Your task to perform on an android device: toggle notification dots Image 0: 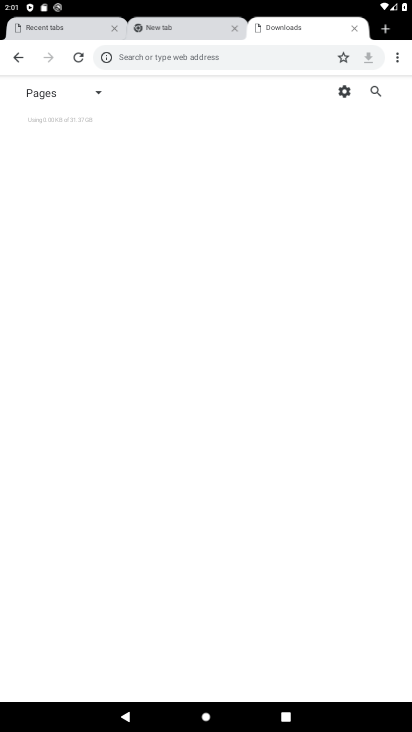
Step 0: press home button
Your task to perform on an android device: toggle notification dots Image 1: 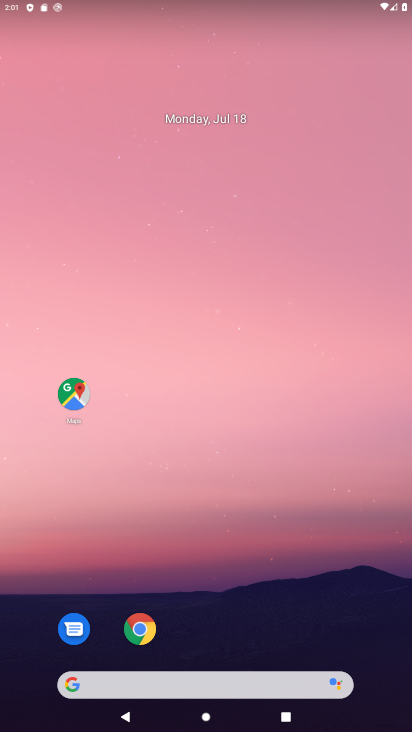
Step 1: drag from (172, 632) to (179, 204)
Your task to perform on an android device: toggle notification dots Image 2: 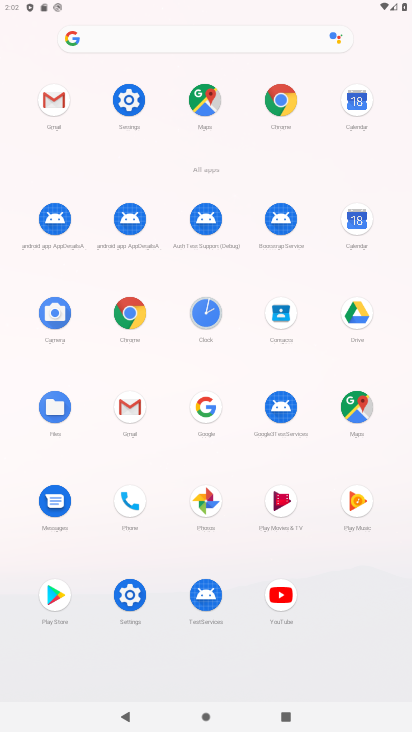
Step 2: click (113, 110)
Your task to perform on an android device: toggle notification dots Image 3: 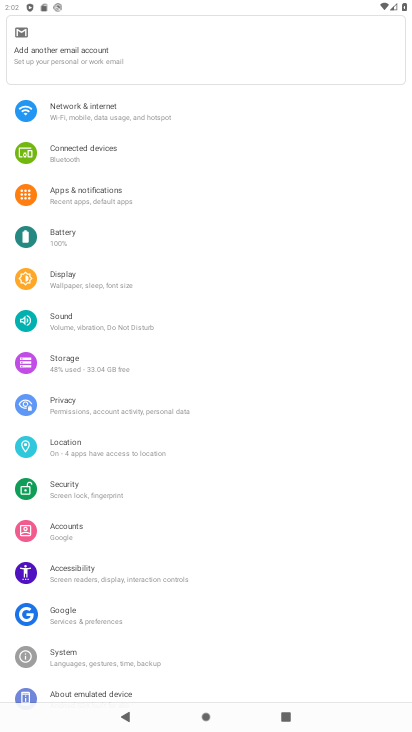
Step 3: click (136, 199)
Your task to perform on an android device: toggle notification dots Image 4: 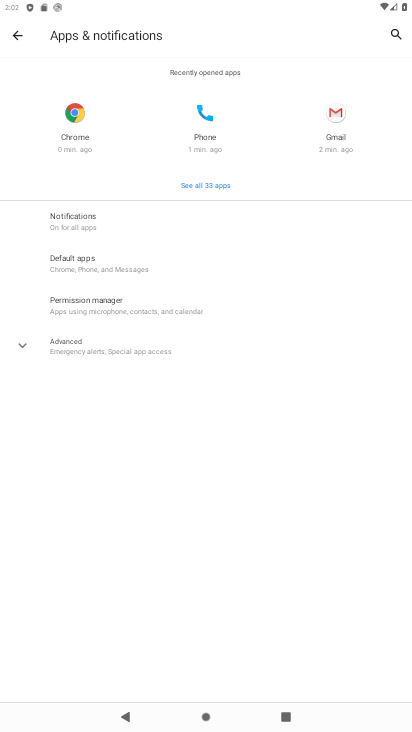
Step 4: click (116, 227)
Your task to perform on an android device: toggle notification dots Image 5: 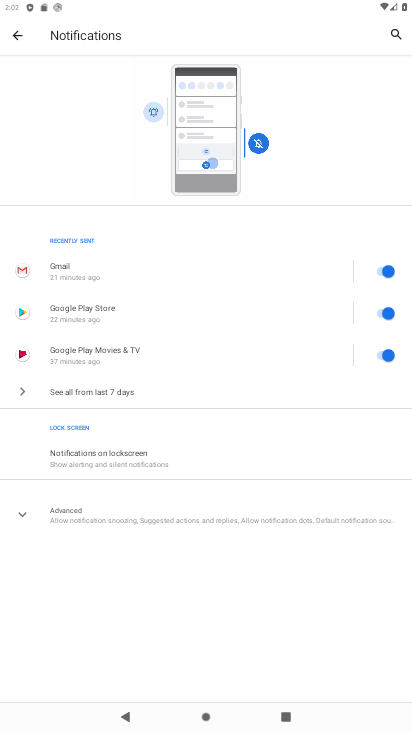
Step 5: click (185, 520)
Your task to perform on an android device: toggle notification dots Image 6: 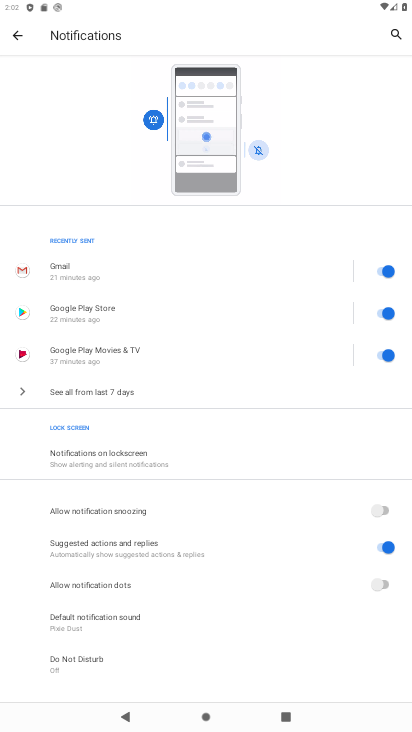
Step 6: click (391, 577)
Your task to perform on an android device: toggle notification dots Image 7: 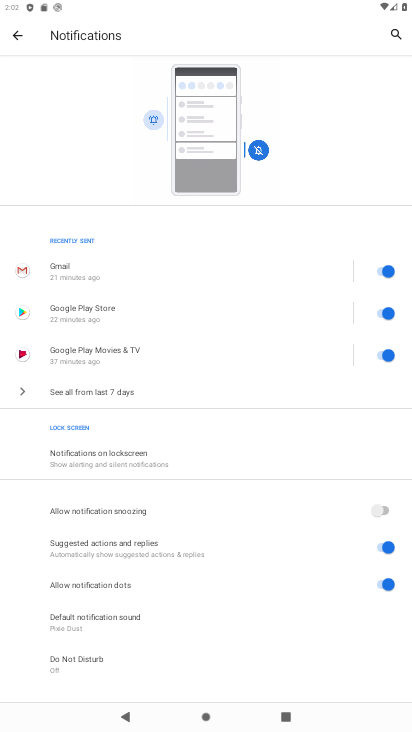
Step 7: task complete